Your task to perform on an android device: Do I have any events tomorrow? Image 0: 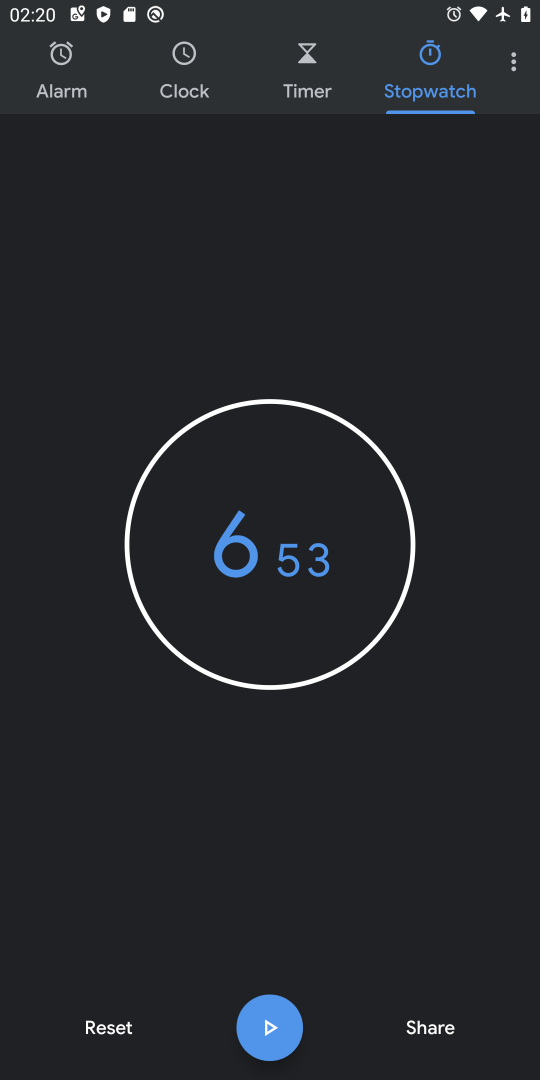
Step 0: press home button
Your task to perform on an android device: Do I have any events tomorrow? Image 1: 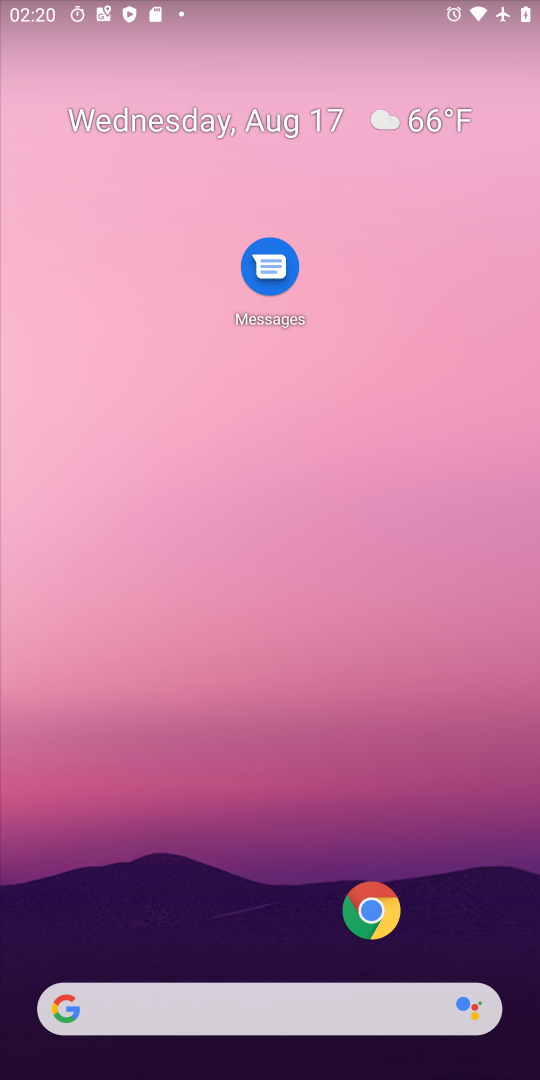
Step 1: drag from (439, 843) to (457, 229)
Your task to perform on an android device: Do I have any events tomorrow? Image 2: 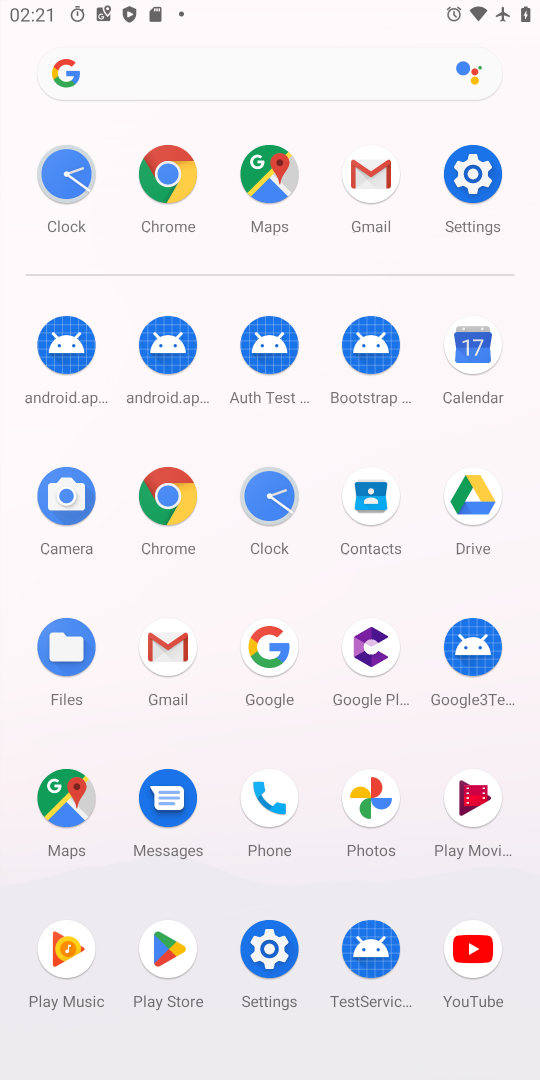
Step 2: click (469, 341)
Your task to perform on an android device: Do I have any events tomorrow? Image 3: 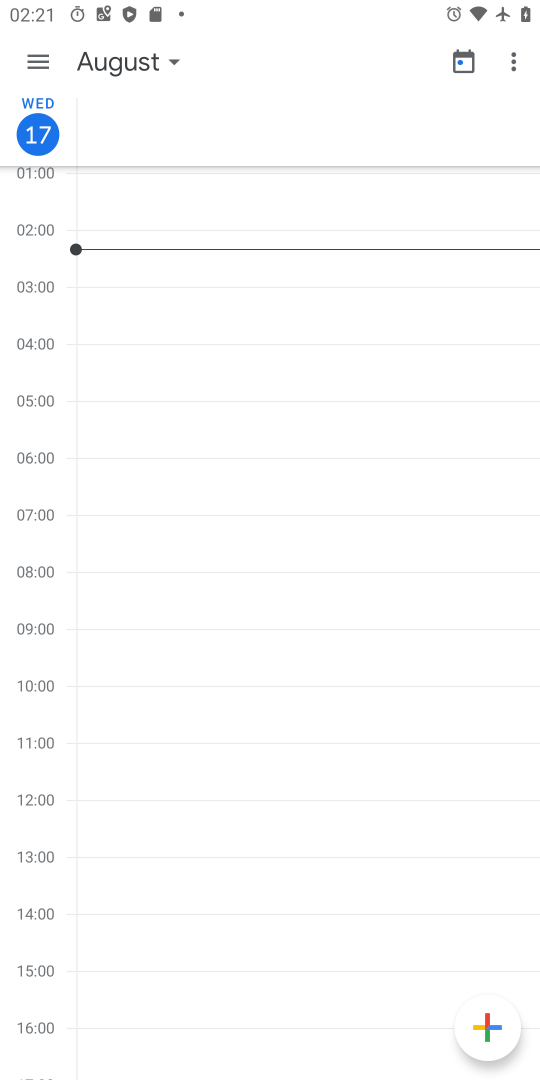
Step 3: click (115, 53)
Your task to perform on an android device: Do I have any events tomorrow? Image 4: 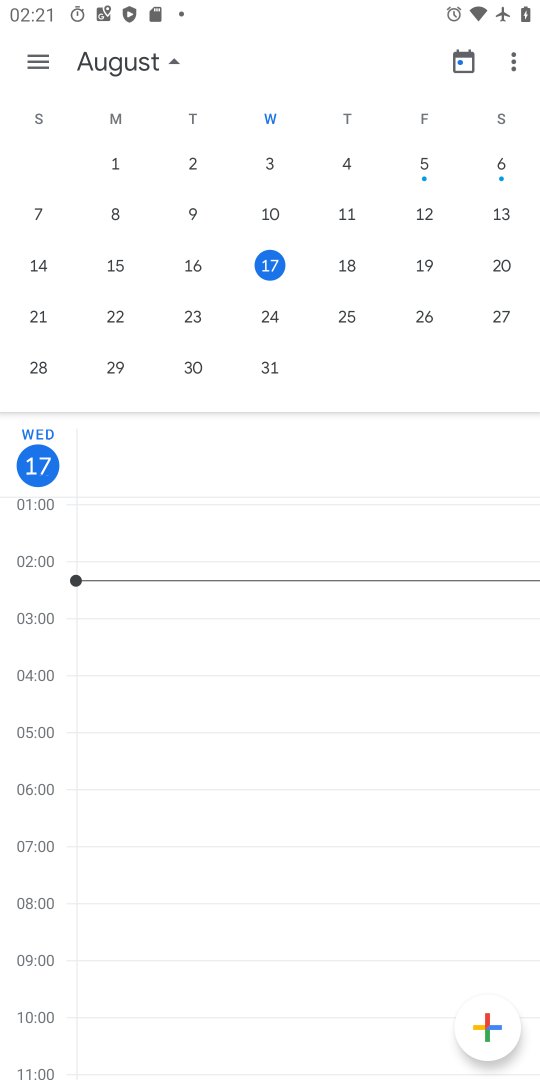
Step 4: click (338, 272)
Your task to perform on an android device: Do I have any events tomorrow? Image 5: 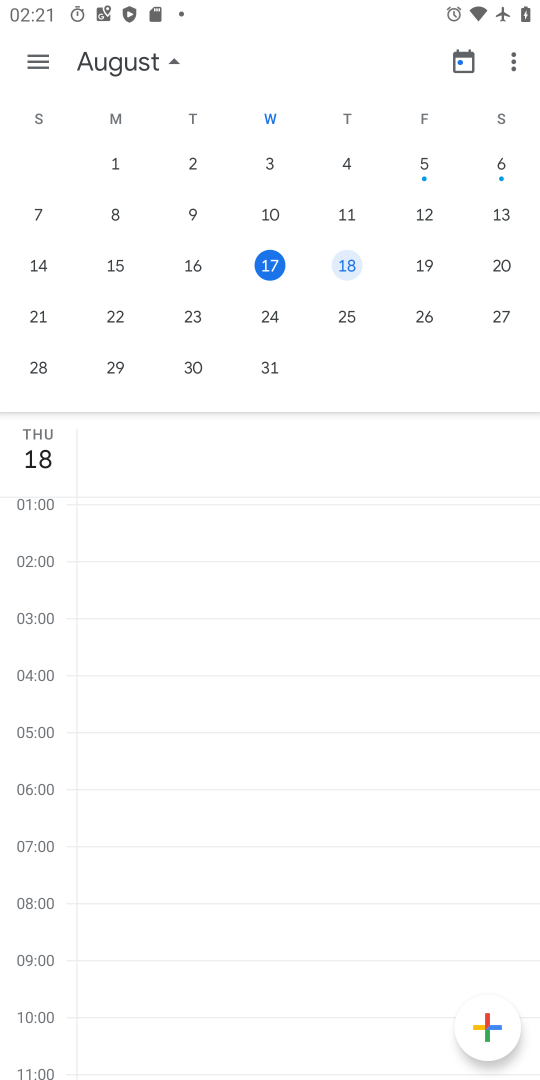
Step 5: task complete